Your task to perform on an android device: toggle pop-ups in chrome Image 0: 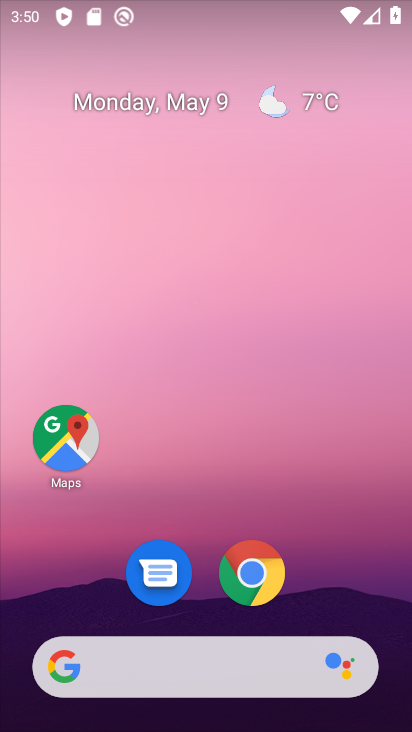
Step 0: click (257, 575)
Your task to perform on an android device: toggle pop-ups in chrome Image 1: 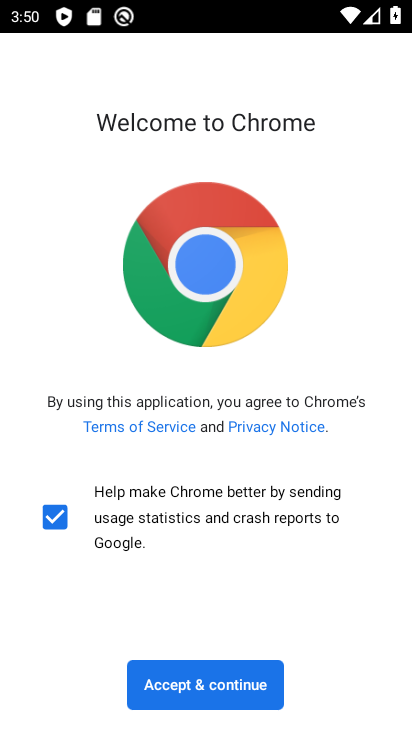
Step 1: click (252, 683)
Your task to perform on an android device: toggle pop-ups in chrome Image 2: 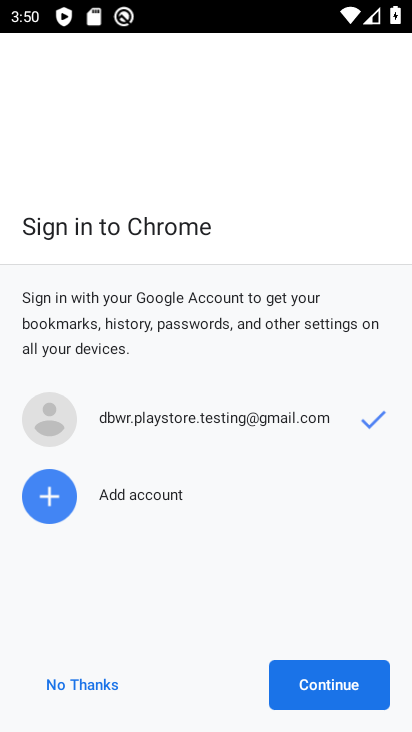
Step 2: click (350, 675)
Your task to perform on an android device: toggle pop-ups in chrome Image 3: 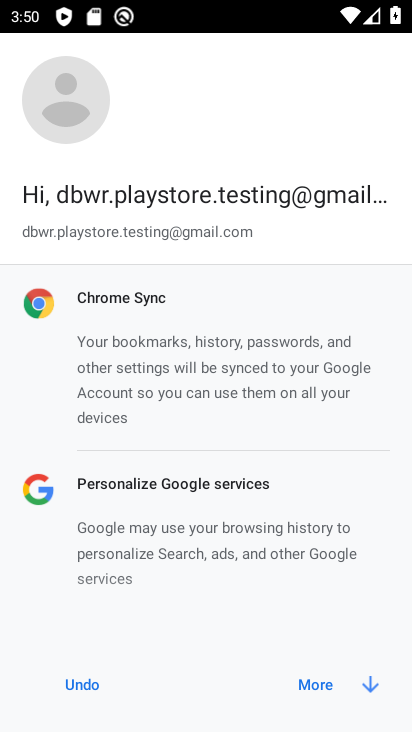
Step 3: click (322, 678)
Your task to perform on an android device: toggle pop-ups in chrome Image 4: 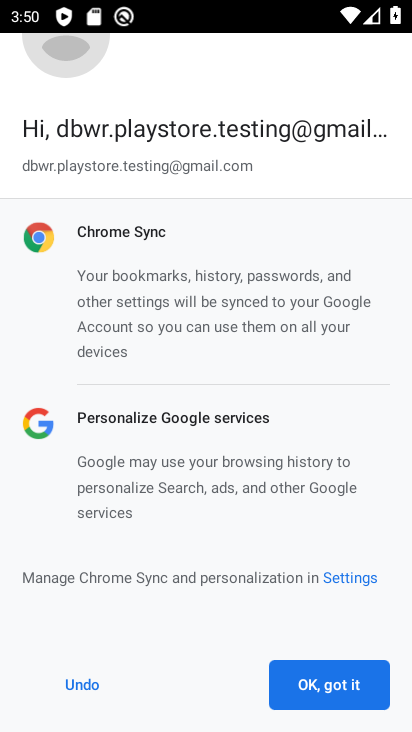
Step 4: click (323, 674)
Your task to perform on an android device: toggle pop-ups in chrome Image 5: 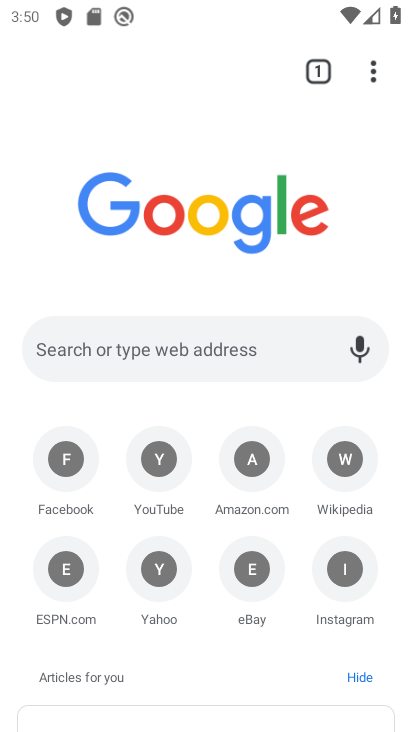
Step 5: click (371, 63)
Your task to perform on an android device: toggle pop-ups in chrome Image 6: 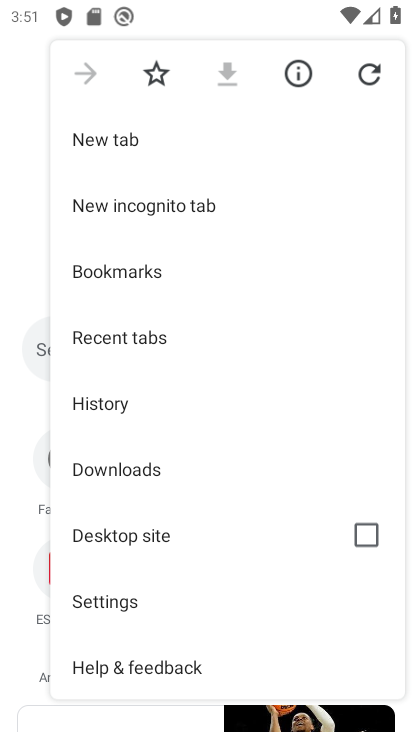
Step 6: drag from (193, 632) to (157, 251)
Your task to perform on an android device: toggle pop-ups in chrome Image 7: 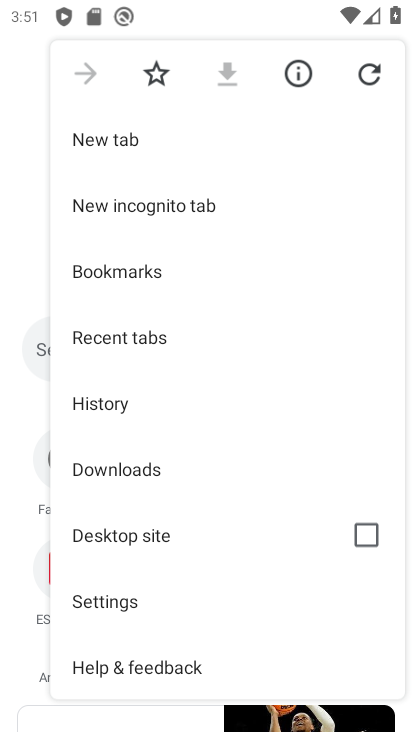
Step 7: click (155, 605)
Your task to perform on an android device: toggle pop-ups in chrome Image 8: 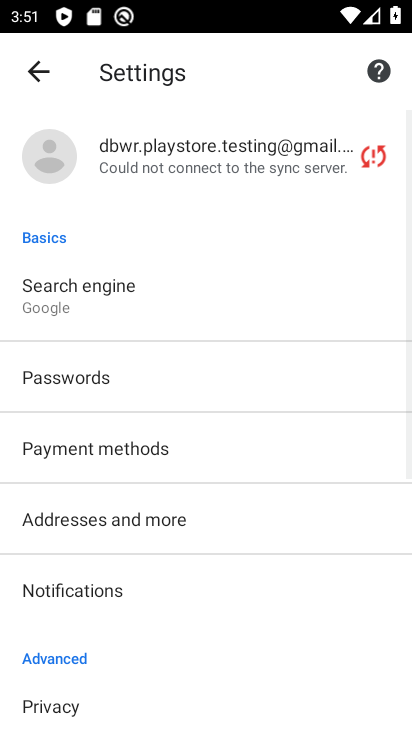
Step 8: drag from (188, 557) to (159, 238)
Your task to perform on an android device: toggle pop-ups in chrome Image 9: 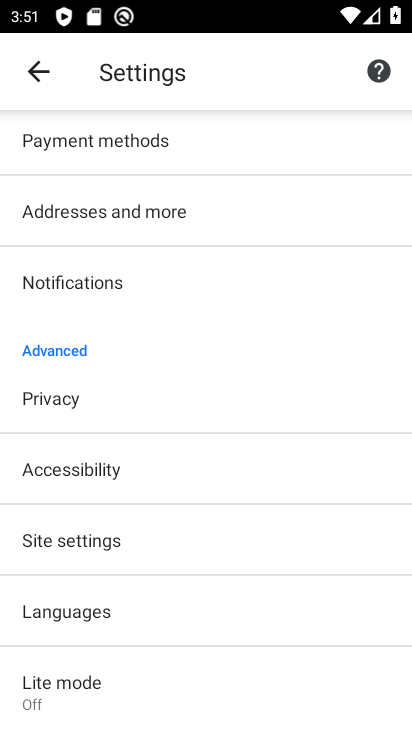
Step 9: click (135, 553)
Your task to perform on an android device: toggle pop-ups in chrome Image 10: 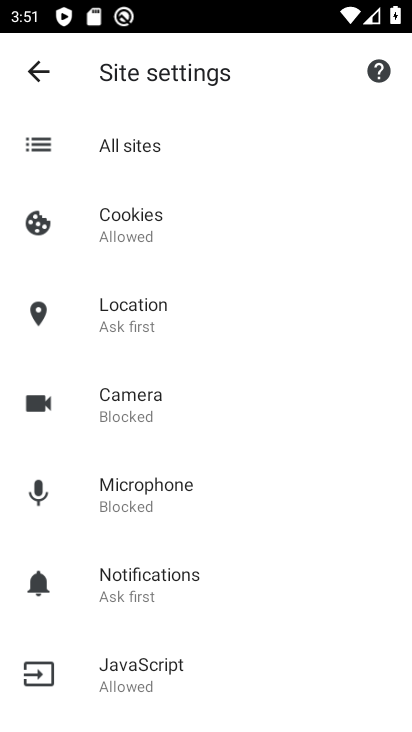
Step 10: drag from (218, 600) to (181, 399)
Your task to perform on an android device: toggle pop-ups in chrome Image 11: 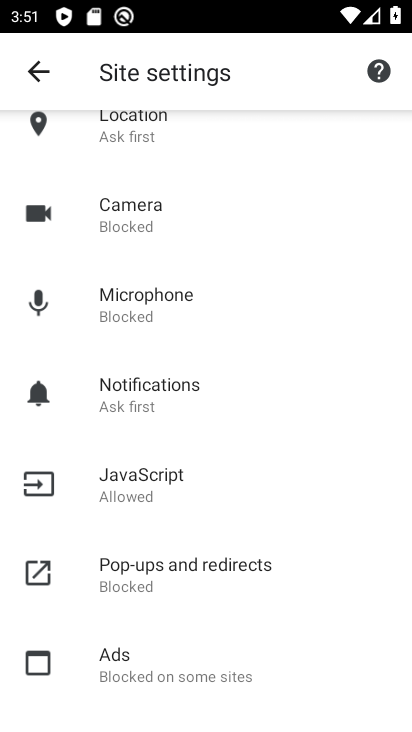
Step 11: drag from (193, 627) to (173, 381)
Your task to perform on an android device: toggle pop-ups in chrome Image 12: 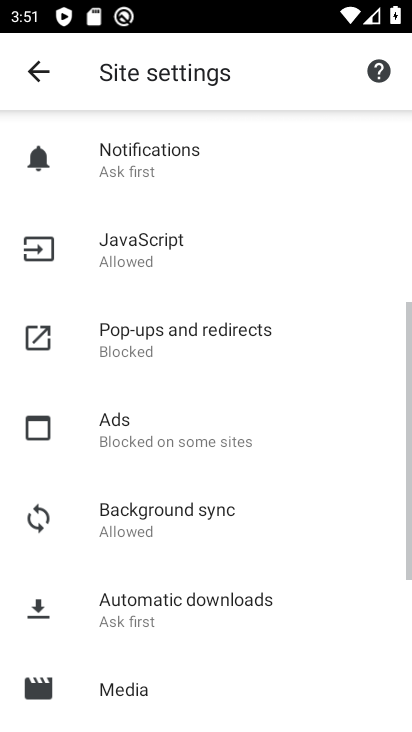
Step 12: click (160, 316)
Your task to perform on an android device: toggle pop-ups in chrome Image 13: 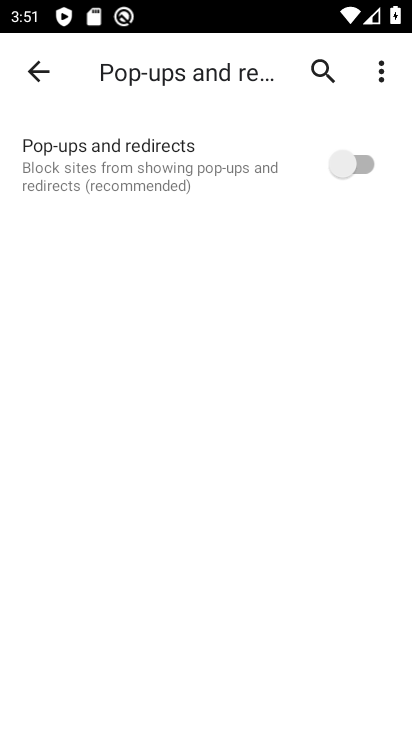
Step 13: click (356, 166)
Your task to perform on an android device: toggle pop-ups in chrome Image 14: 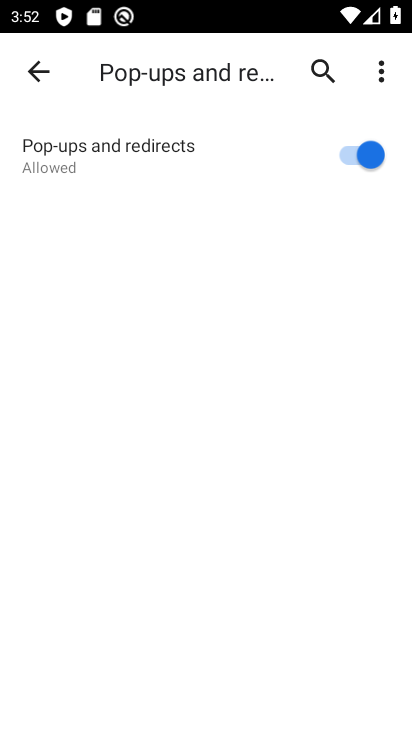
Step 14: task complete